Your task to perform on an android device: Is it going to rain today? Image 0: 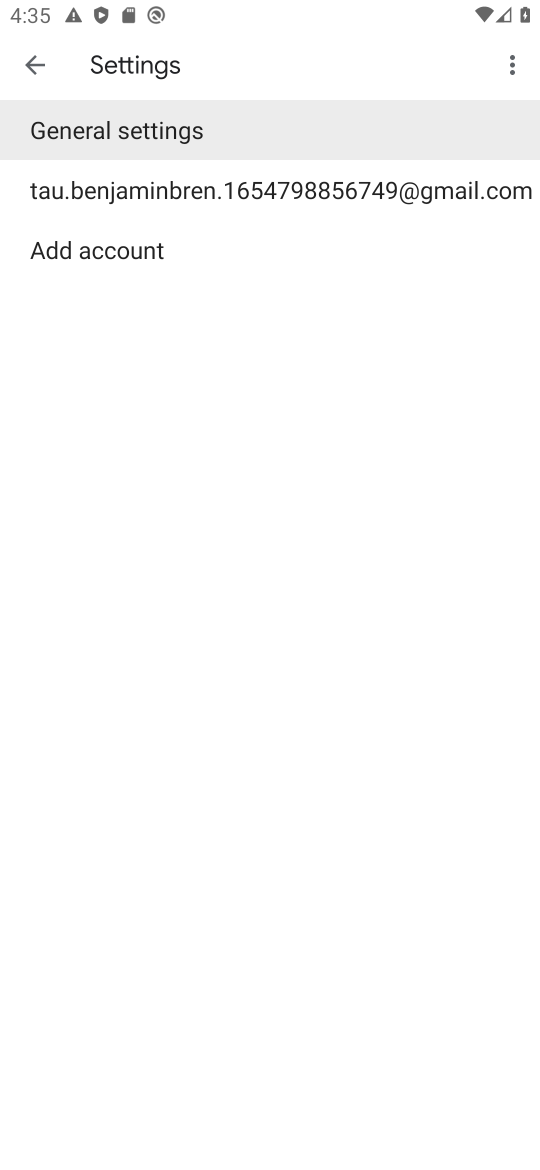
Step 0: press home button
Your task to perform on an android device: Is it going to rain today? Image 1: 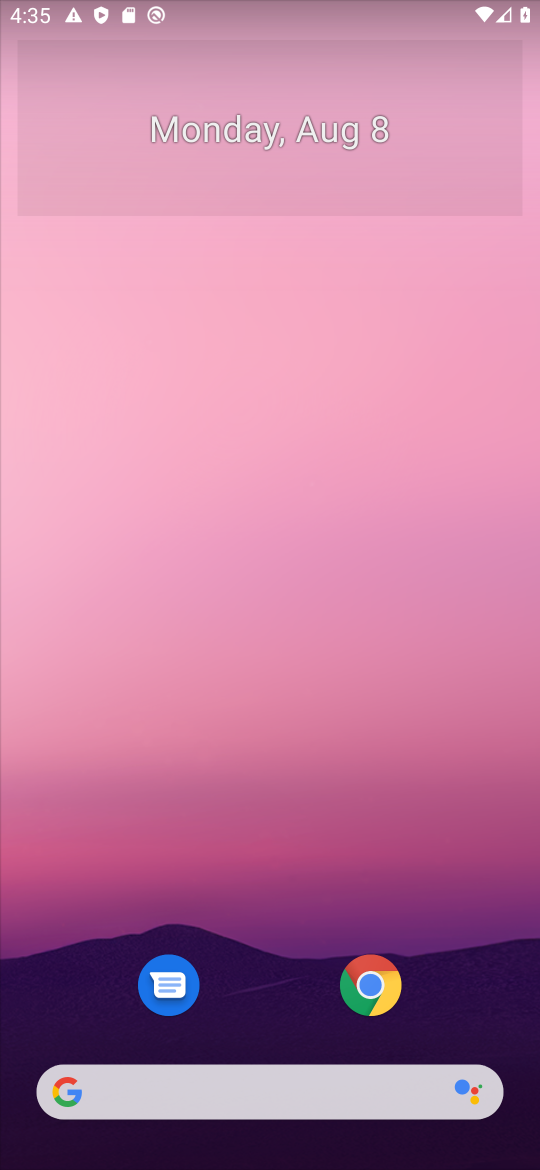
Step 1: click (245, 1094)
Your task to perform on an android device: Is it going to rain today? Image 2: 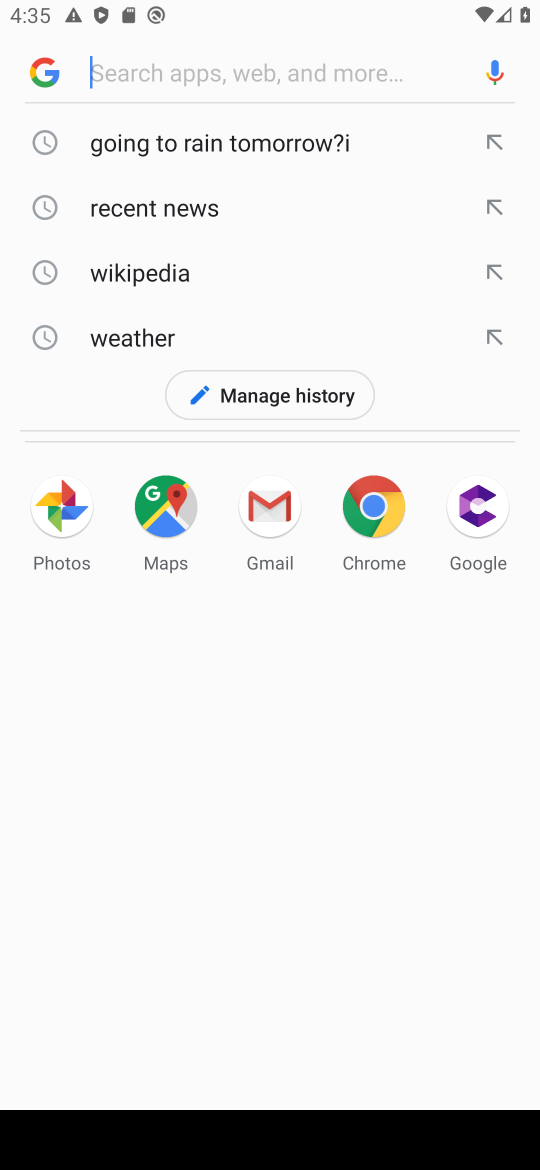
Step 2: type "Is it going to rain today?"
Your task to perform on an android device: Is it going to rain today? Image 3: 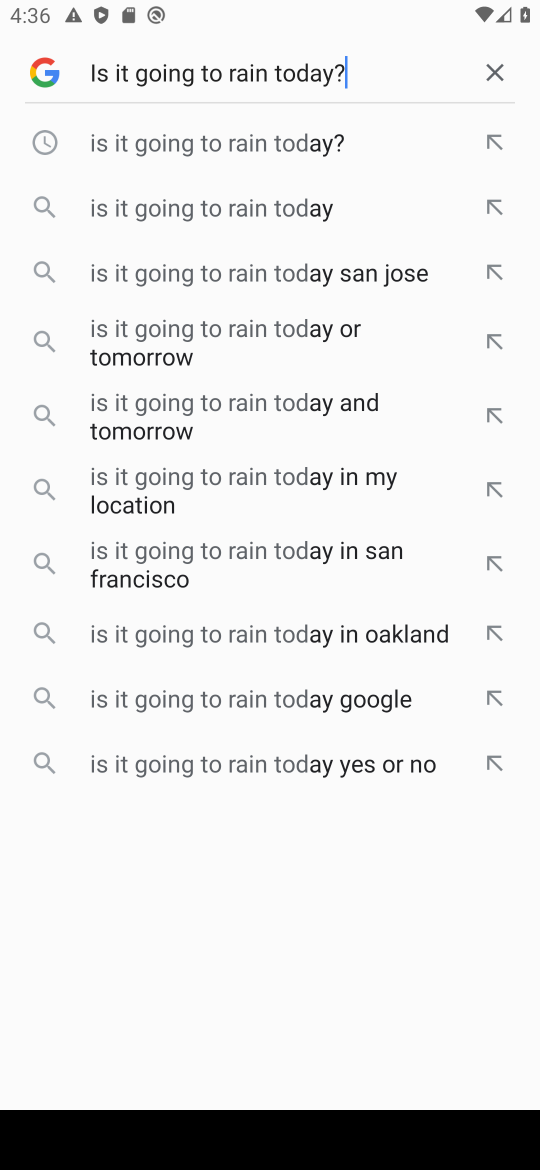
Step 3: press enter
Your task to perform on an android device: Is it going to rain today? Image 4: 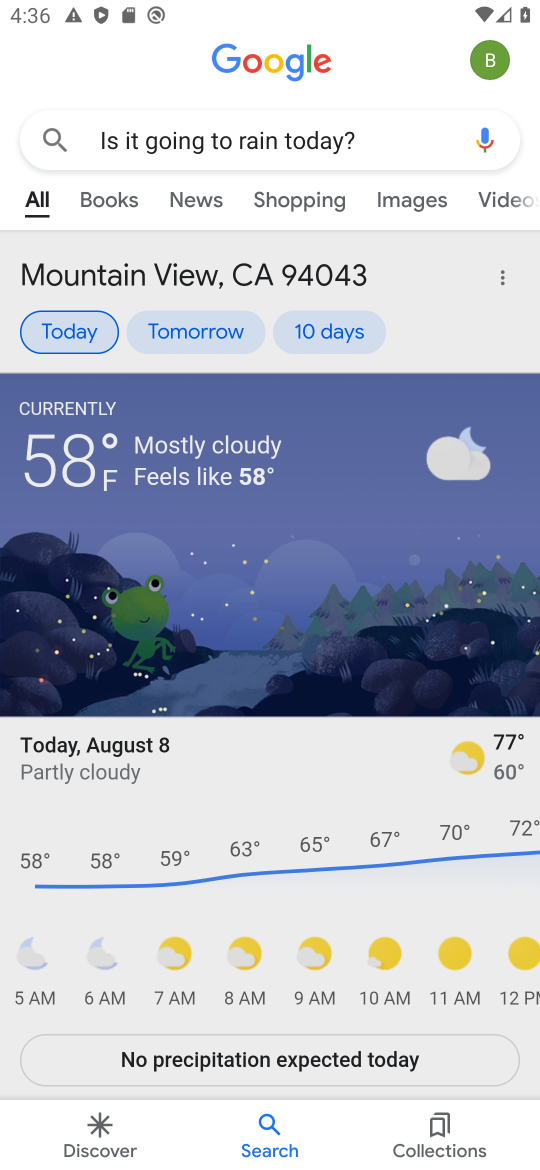
Step 4: task complete